Your task to perform on an android device: Go to Wikipedia Image 0: 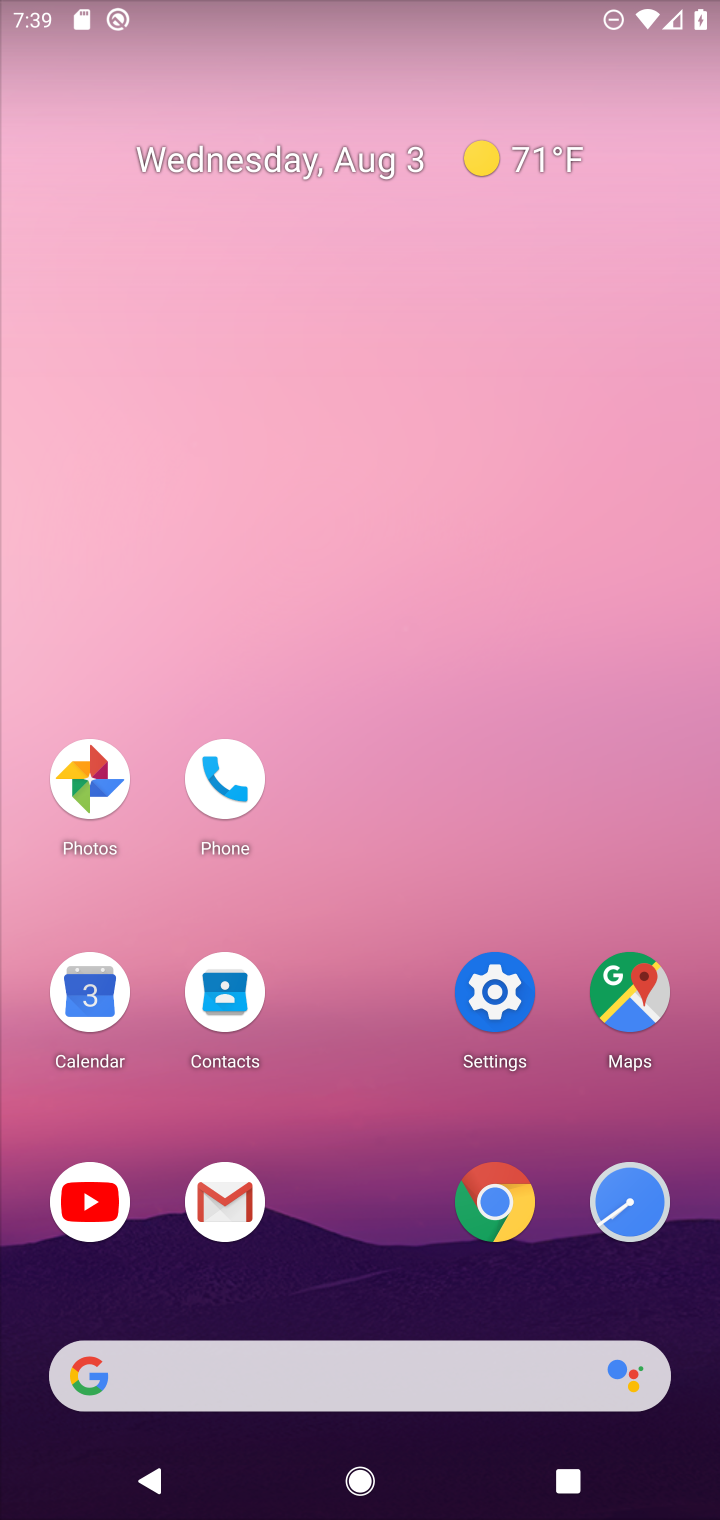
Step 0: click (507, 1210)
Your task to perform on an android device: Go to Wikipedia Image 1: 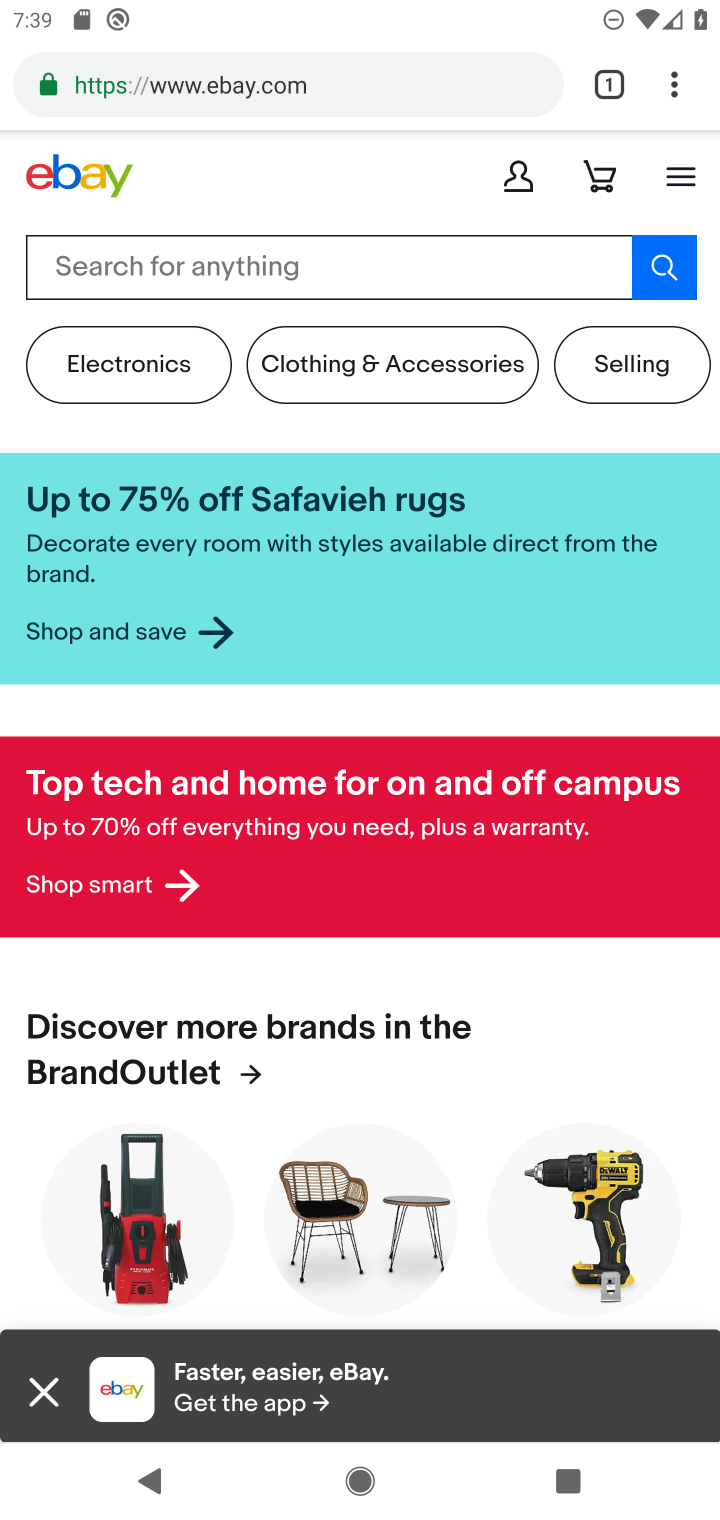
Step 1: click (678, 103)
Your task to perform on an android device: Go to Wikipedia Image 2: 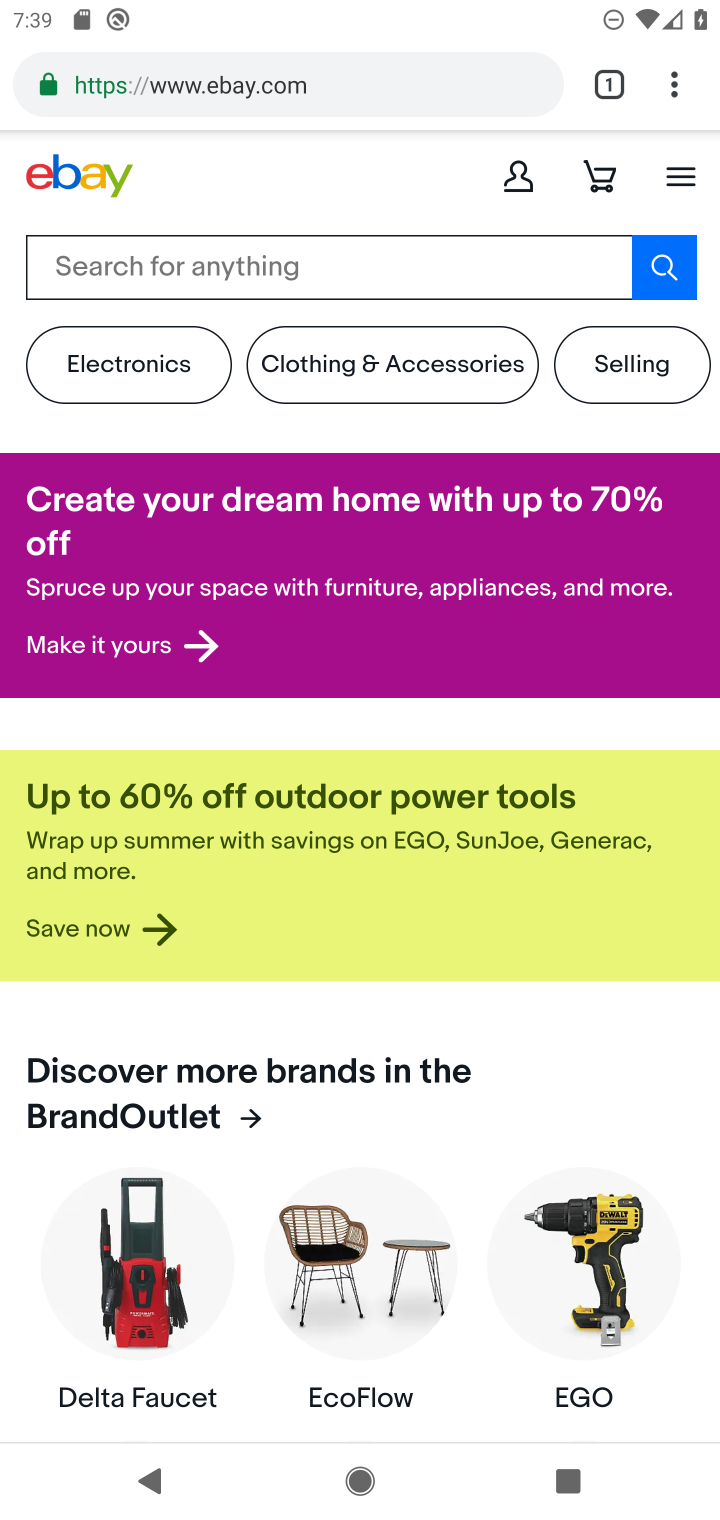
Step 2: click (681, 87)
Your task to perform on an android device: Go to Wikipedia Image 3: 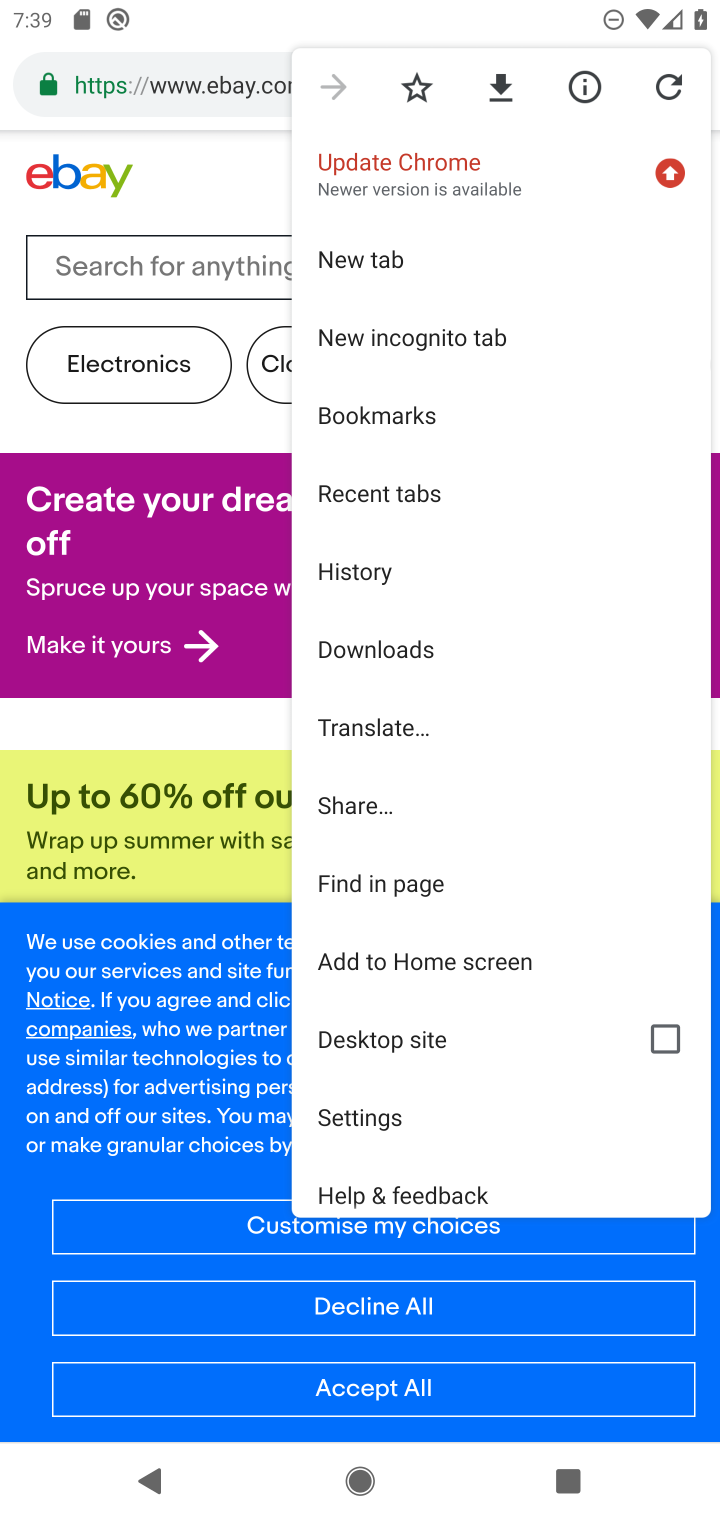
Step 3: click (379, 259)
Your task to perform on an android device: Go to Wikipedia Image 4: 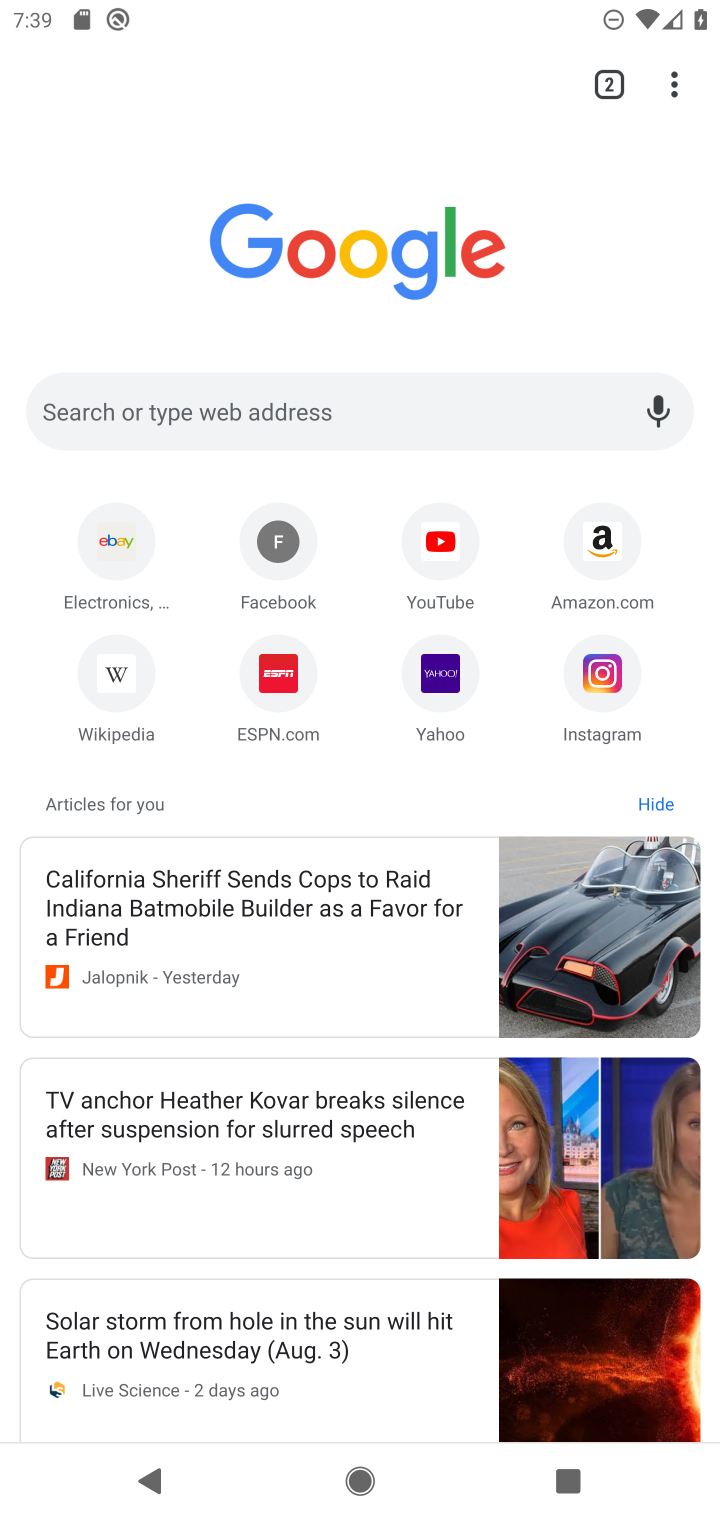
Step 4: click (118, 689)
Your task to perform on an android device: Go to Wikipedia Image 5: 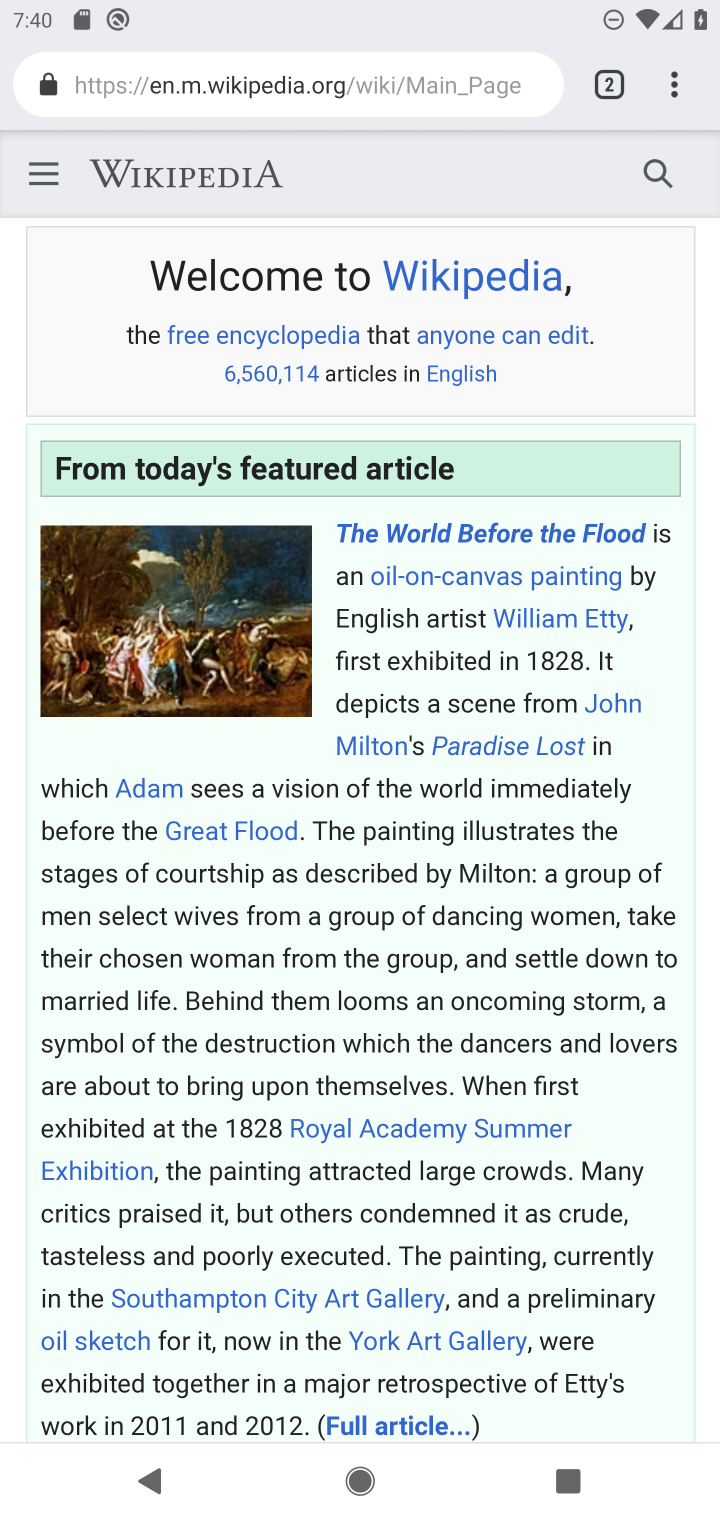
Step 5: task complete